Your task to perform on an android device: Is it going to rain tomorrow? Image 0: 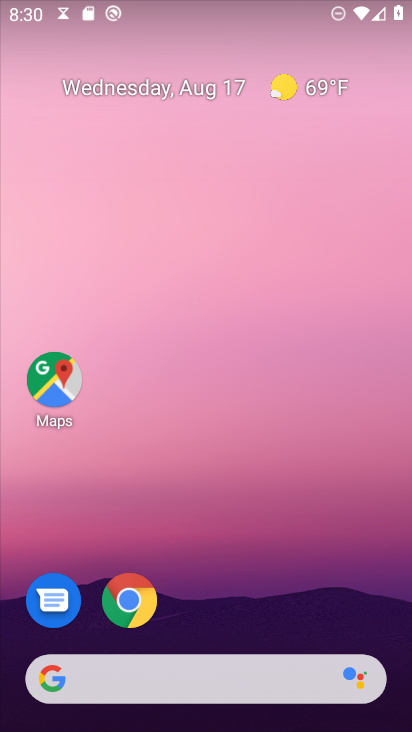
Step 0: press home button
Your task to perform on an android device: Is it going to rain tomorrow? Image 1: 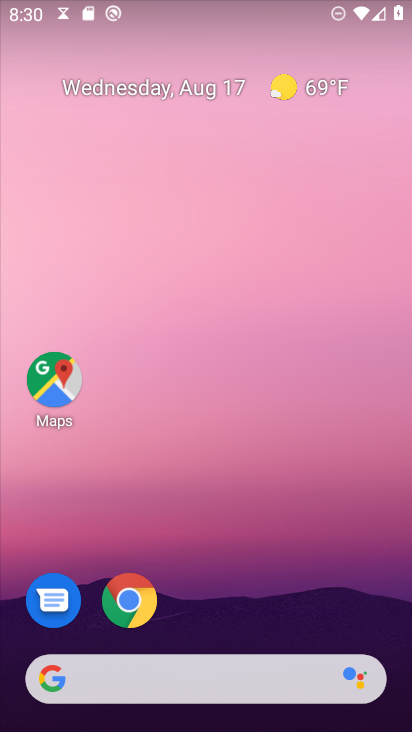
Step 1: click (43, 679)
Your task to perform on an android device: Is it going to rain tomorrow? Image 2: 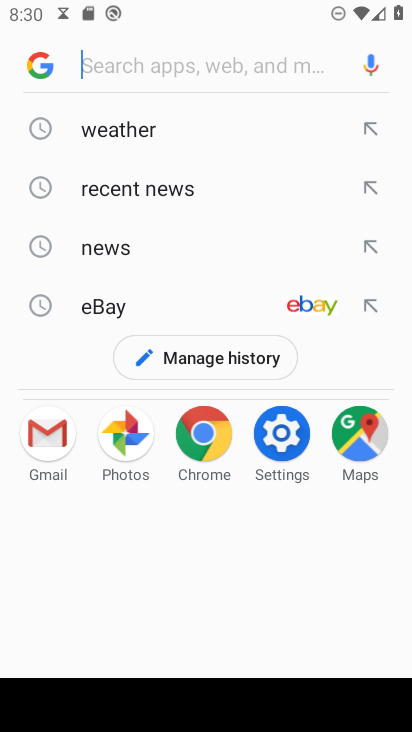
Step 2: type "Is it going to rain tomorrow?"
Your task to perform on an android device: Is it going to rain tomorrow? Image 3: 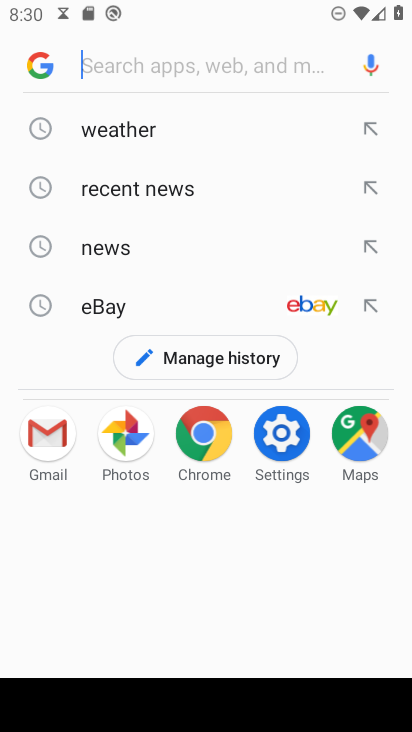
Step 3: click (143, 59)
Your task to perform on an android device: Is it going to rain tomorrow? Image 4: 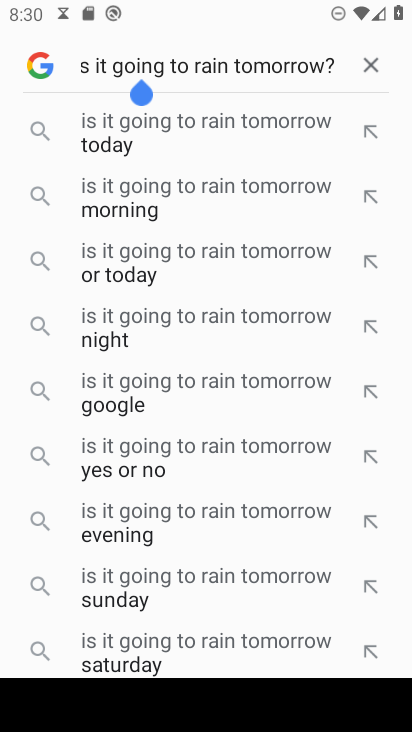
Step 4: press enter
Your task to perform on an android device: Is it going to rain tomorrow? Image 5: 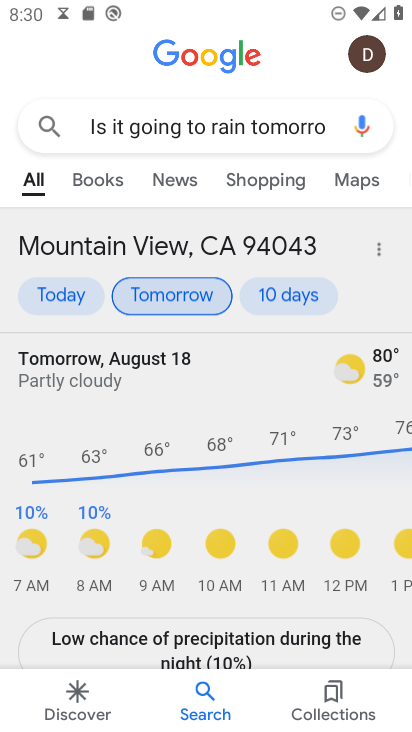
Step 5: task complete